Your task to perform on an android device: turn on wifi Image 0: 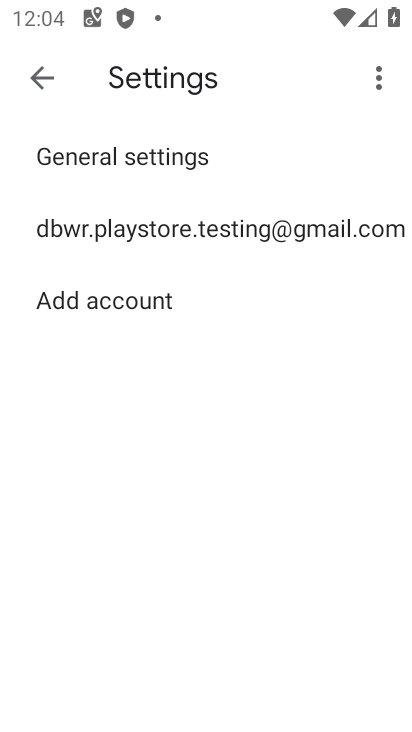
Step 0: press home button
Your task to perform on an android device: turn on wifi Image 1: 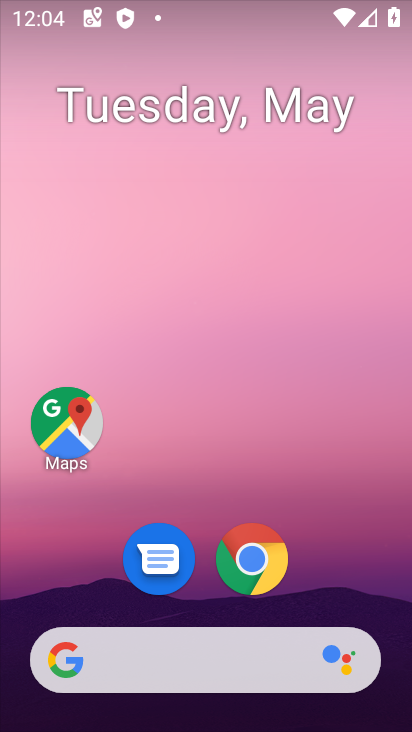
Step 1: drag from (383, 565) to (334, 118)
Your task to perform on an android device: turn on wifi Image 2: 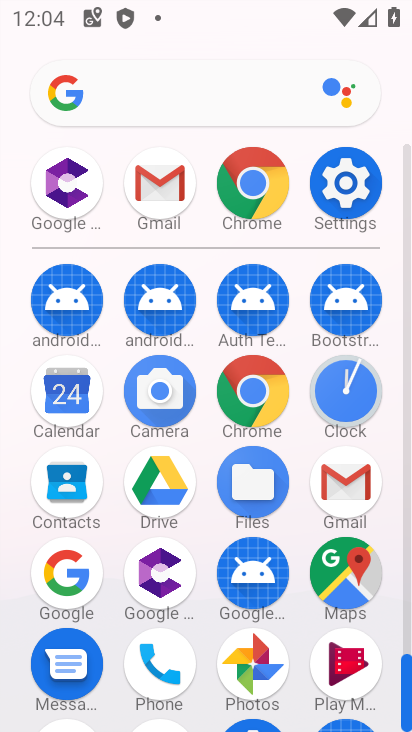
Step 2: click (338, 198)
Your task to perform on an android device: turn on wifi Image 3: 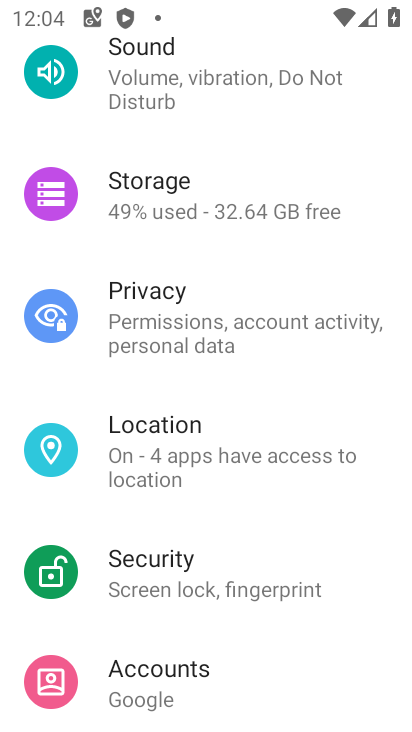
Step 3: drag from (236, 105) to (244, 443)
Your task to perform on an android device: turn on wifi Image 4: 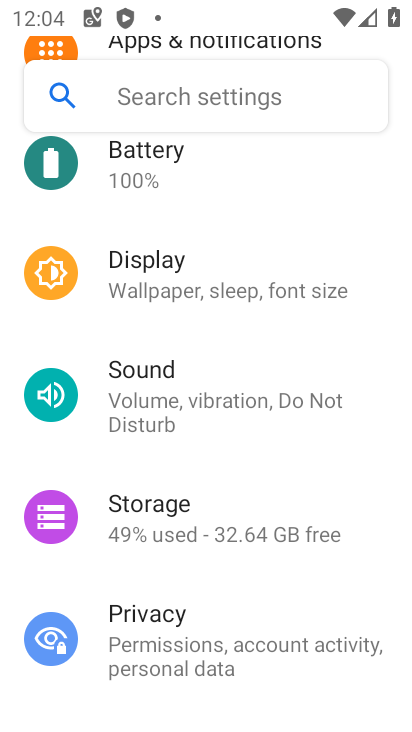
Step 4: drag from (228, 406) to (346, 664)
Your task to perform on an android device: turn on wifi Image 5: 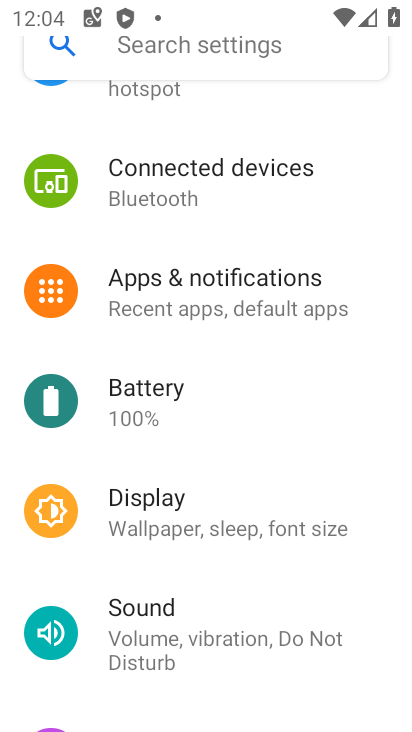
Step 5: drag from (309, 234) to (386, 507)
Your task to perform on an android device: turn on wifi Image 6: 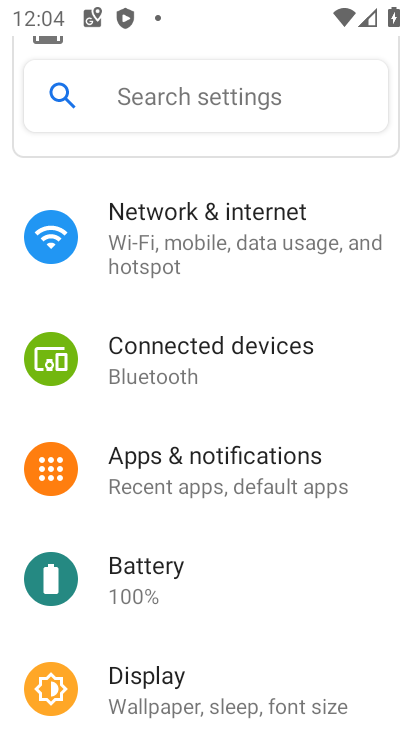
Step 6: click (293, 232)
Your task to perform on an android device: turn on wifi Image 7: 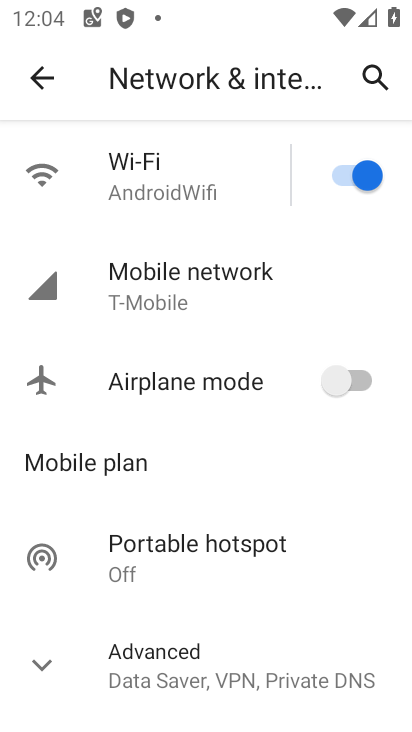
Step 7: task complete